Your task to perform on an android device: turn off translation in the chrome app Image 0: 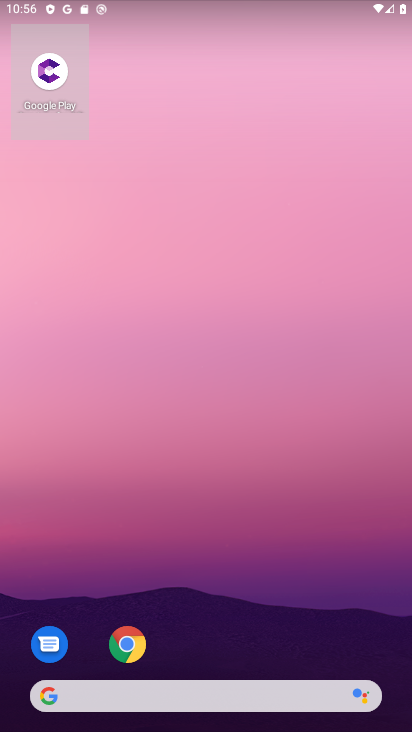
Step 0: drag from (224, 636) to (182, 225)
Your task to perform on an android device: turn off translation in the chrome app Image 1: 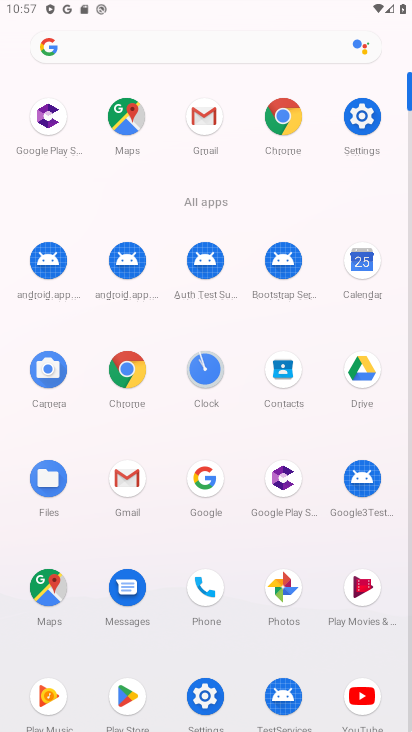
Step 1: click (275, 119)
Your task to perform on an android device: turn off translation in the chrome app Image 2: 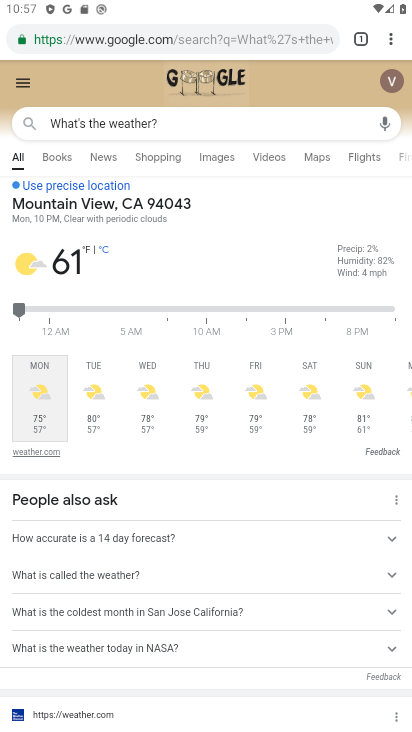
Step 2: click (394, 43)
Your task to perform on an android device: turn off translation in the chrome app Image 3: 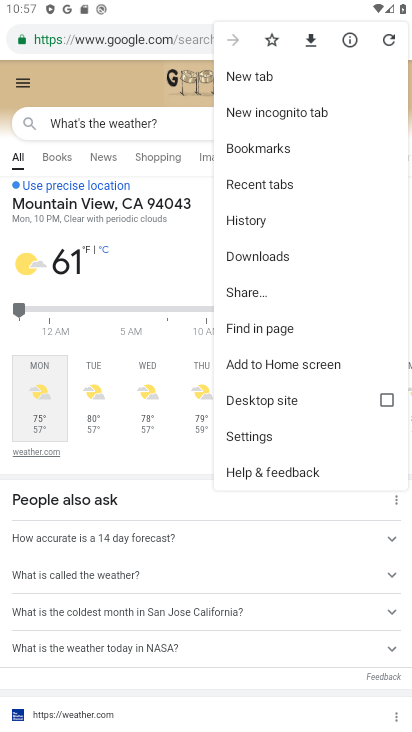
Step 3: click (255, 432)
Your task to perform on an android device: turn off translation in the chrome app Image 4: 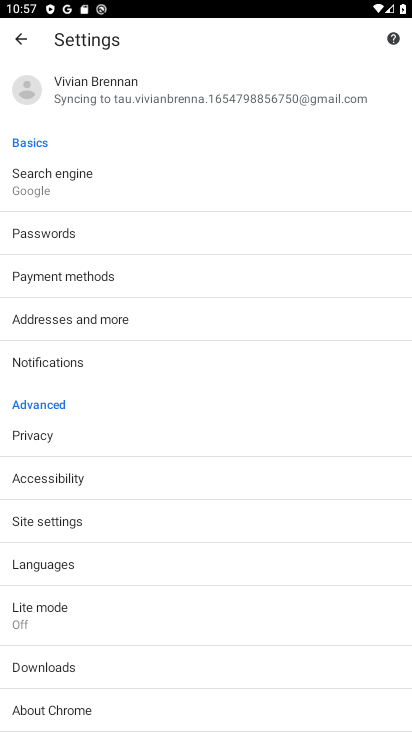
Step 4: click (92, 566)
Your task to perform on an android device: turn off translation in the chrome app Image 5: 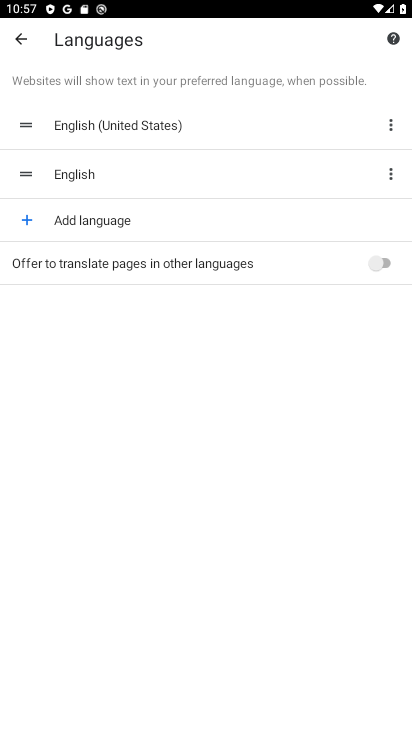
Step 5: task complete